Your task to perform on an android device: turn off notifications settings in the gmail app Image 0: 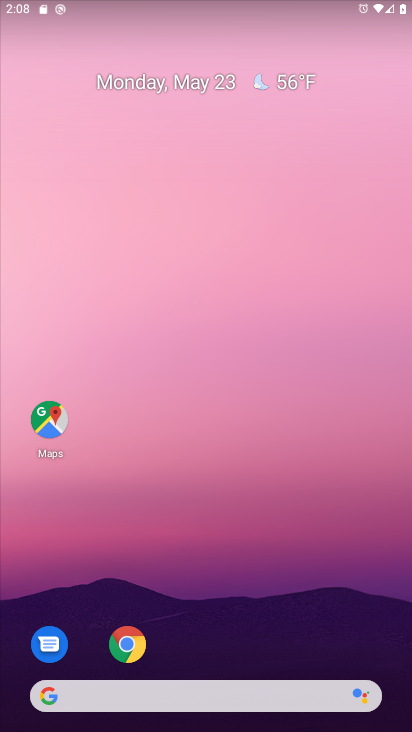
Step 0: drag from (237, 624) to (189, 2)
Your task to perform on an android device: turn off notifications settings in the gmail app Image 1: 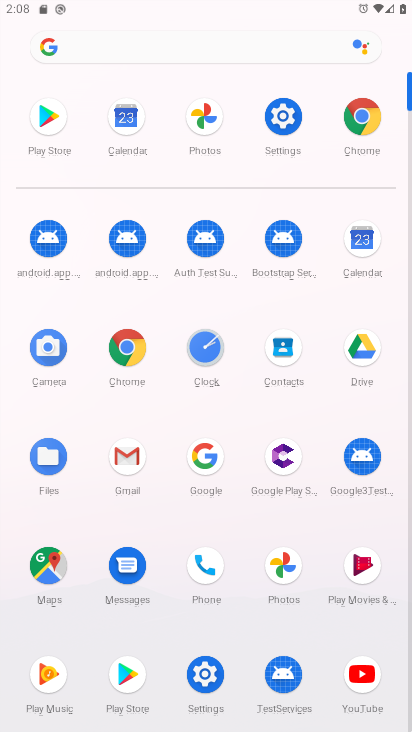
Step 1: click (135, 455)
Your task to perform on an android device: turn off notifications settings in the gmail app Image 2: 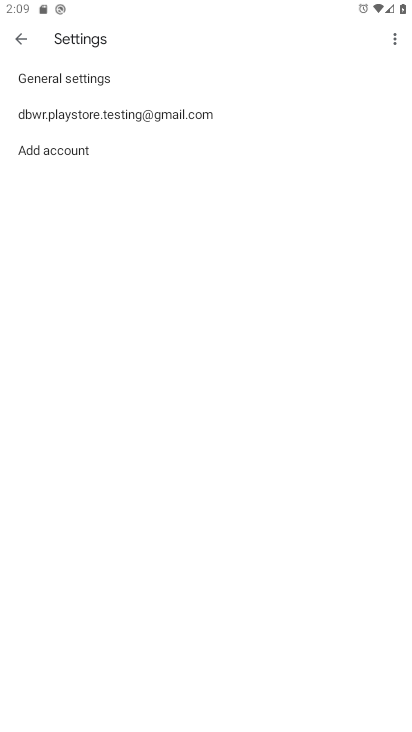
Step 2: click (101, 621)
Your task to perform on an android device: turn off notifications settings in the gmail app Image 3: 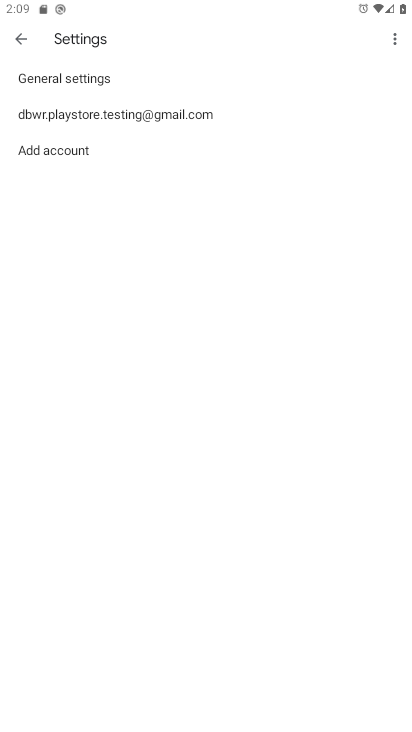
Step 3: click (121, 122)
Your task to perform on an android device: turn off notifications settings in the gmail app Image 4: 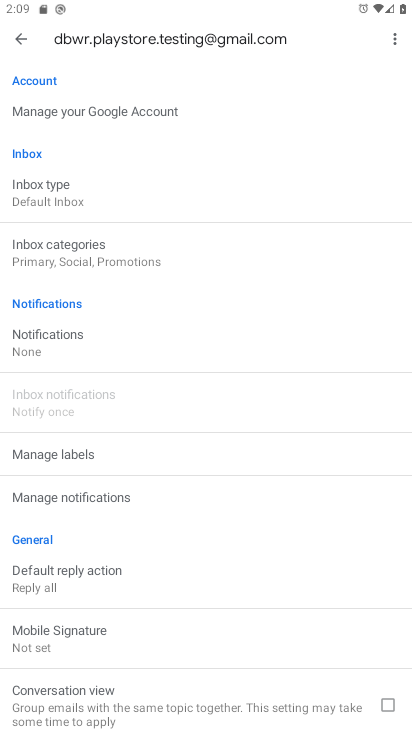
Step 4: click (54, 362)
Your task to perform on an android device: turn off notifications settings in the gmail app Image 5: 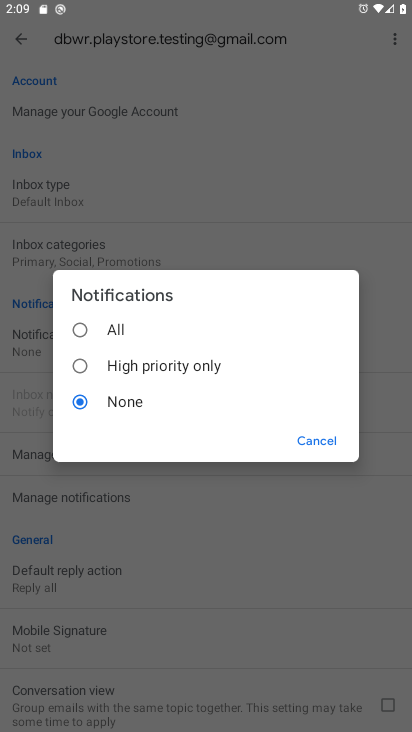
Step 5: click (78, 321)
Your task to perform on an android device: turn off notifications settings in the gmail app Image 6: 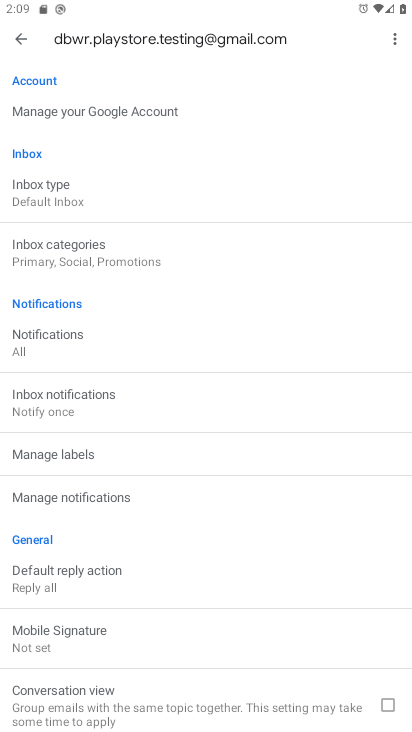
Step 6: task complete